Your task to perform on an android device: Open notification settings Image 0: 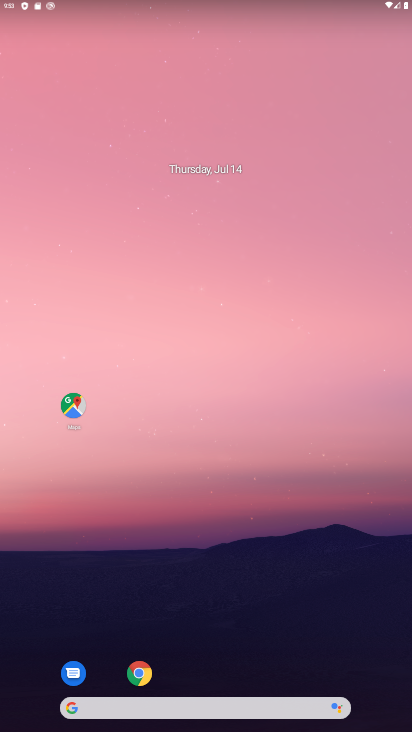
Step 0: drag from (14, 580) to (411, 457)
Your task to perform on an android device: Open notification settings Image 1: 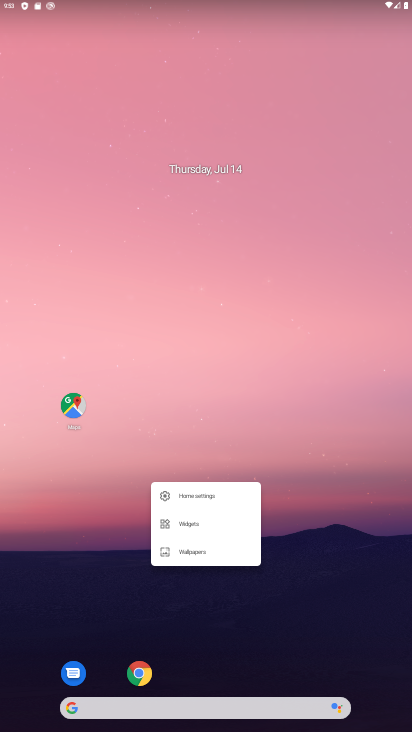
Step 1: click (286, 618)
Your task to perform on an android device: Open notification settings Image 2: 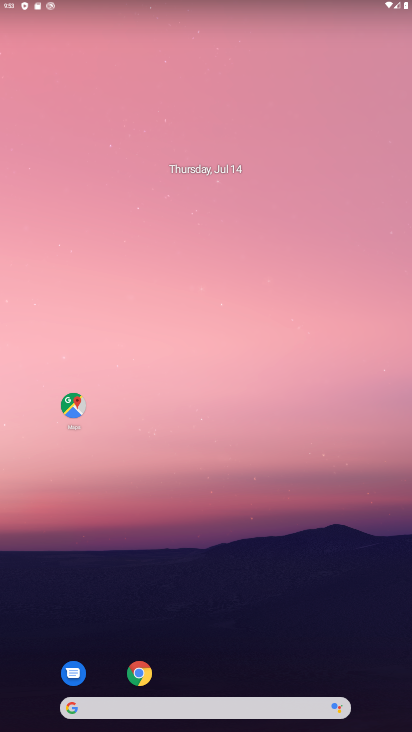
Step 2: drag from (286, 618) to (182, 0)
Your task to perform on an android device: Open notification settings Image 3: 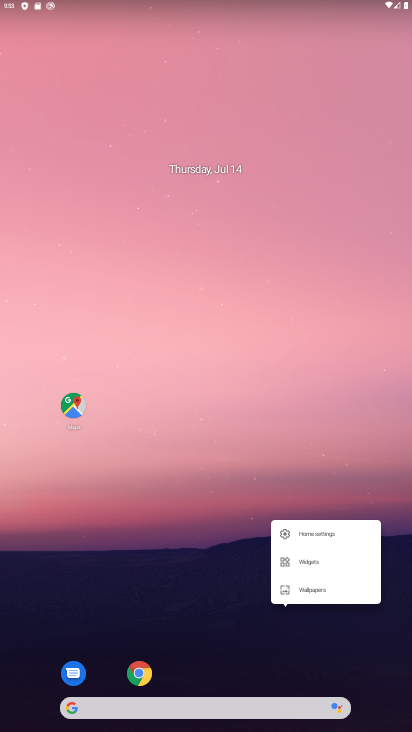
Step 3: click (207, 564)
Your task to perform on an android device: Open notification settings Image 4: 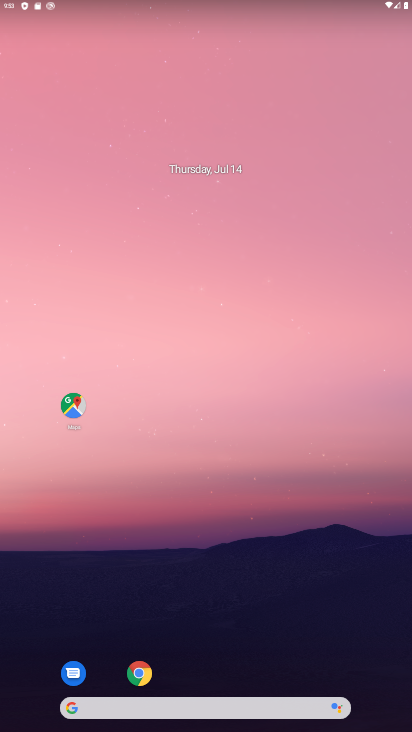
Step 4: drag from (207, 564) to (210, 199)
Your task to perform on an android device: Open notification settings Image 5: 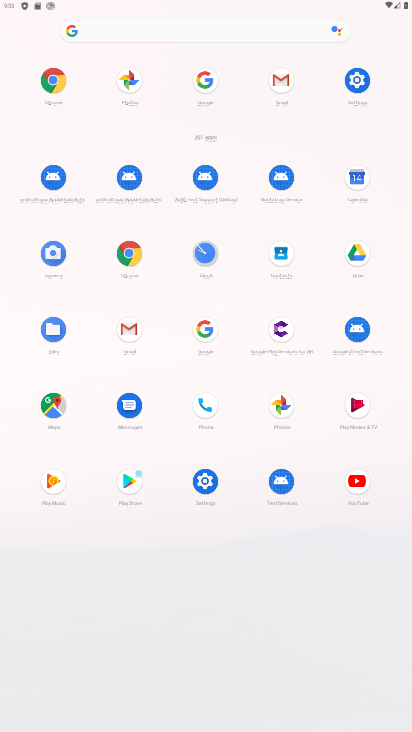
Step 5: click (359, 77)
Your task to perform on an android device: Open notification settings Image 6: 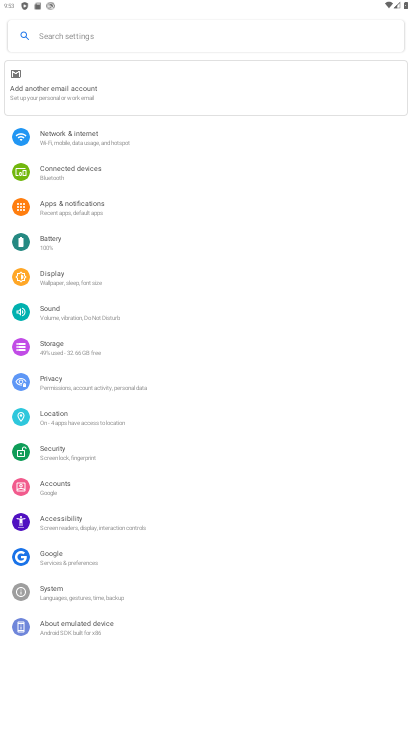
Step 6: click (86, 203)
Your task to perform on an android device: Open notification settings Image 7: 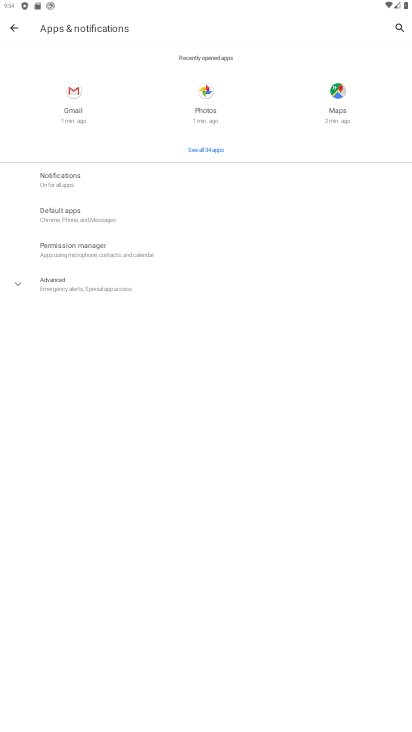
Step 7: task complete